Your task to perform on an android device: Go to Wikipedia Image 0: 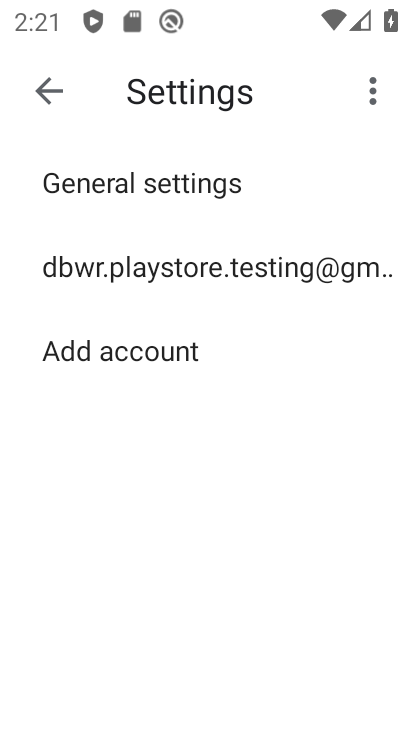
Step 0: press home button
Your task to perform on an android device: Go to Wikipedia Image 1: 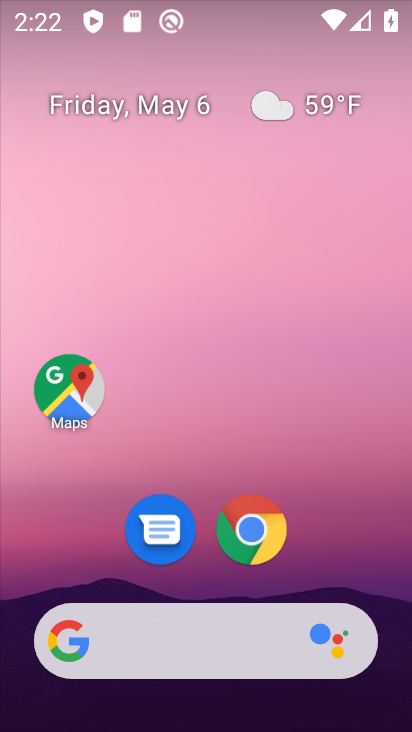
Step 1: drag from (294, 578) to (255, 98)
Your task to perform on an android device: Go to Wikipedia Image 2: 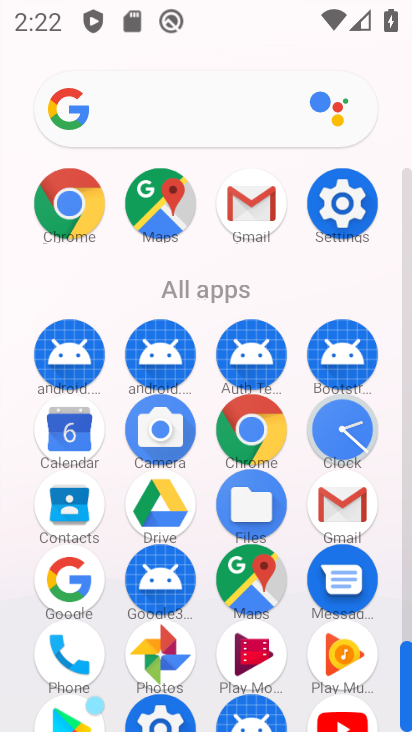
Step 2: click (84, 218)
Your task to perform on an android device: Go to Wikipedia Image 3: 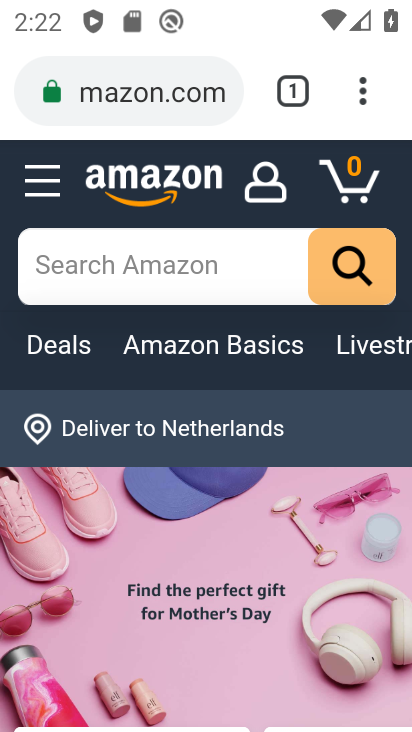
Step 3: drag from (369, 99) to (128, 180)
Your task to perform on an android device: Go to Wikipedia Image 4: 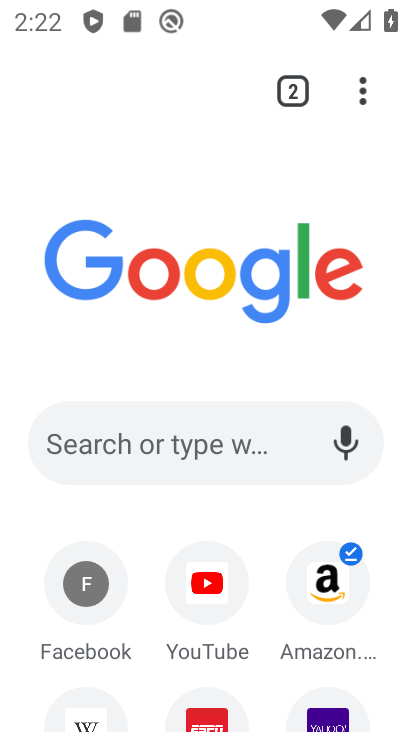
Step 4: drag from (380, 654) to (371, 248)
Your task to perform on an android device: Go to Wikipedia Image 5: 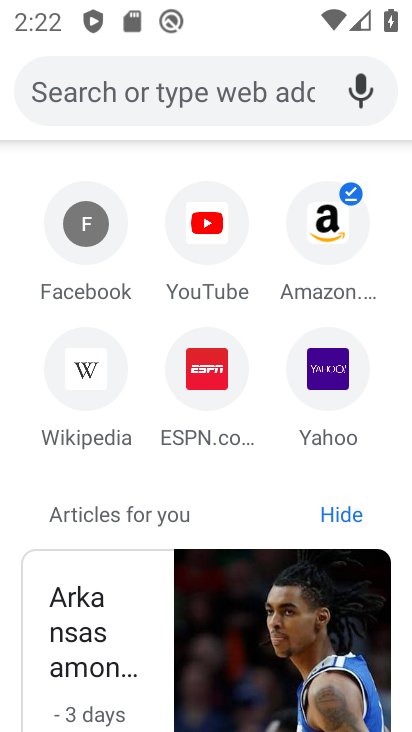
Step 5: click (87, 372)
Your task to perform on an android device: Go to Wikipedia Image 6: 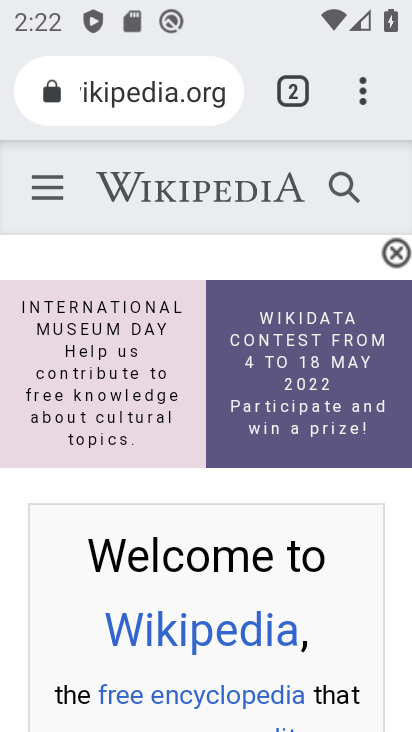
Step 6: task complete